Your task to perform on an android device: Open Reddit.com Image 0: 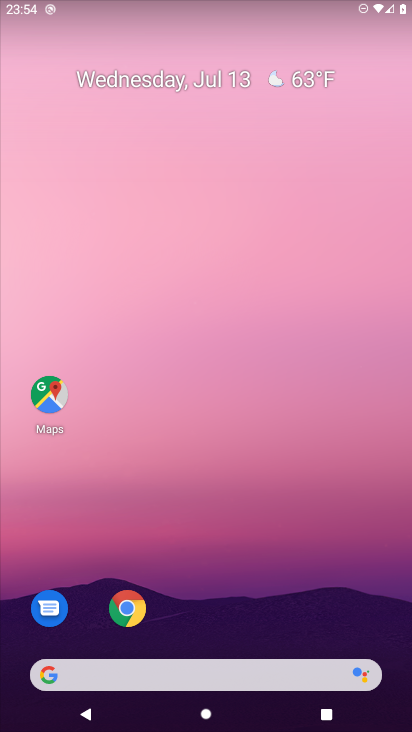
Step 0: press home button
Your task to perform on an android device: Open Reddit.com Image 1: 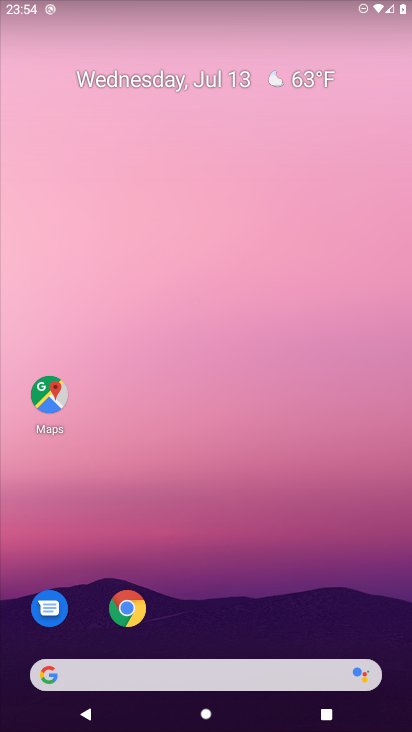
Step 1: click (51, 673)
Your task to perform on an android device: Open Reddit.com Image 2: 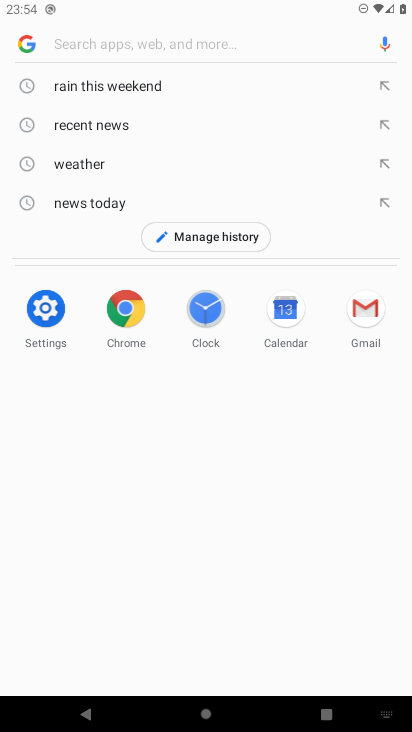
Step 2: type "Reddit.com"
Your task to perform on an android device: Open Reddit.com Image 3: 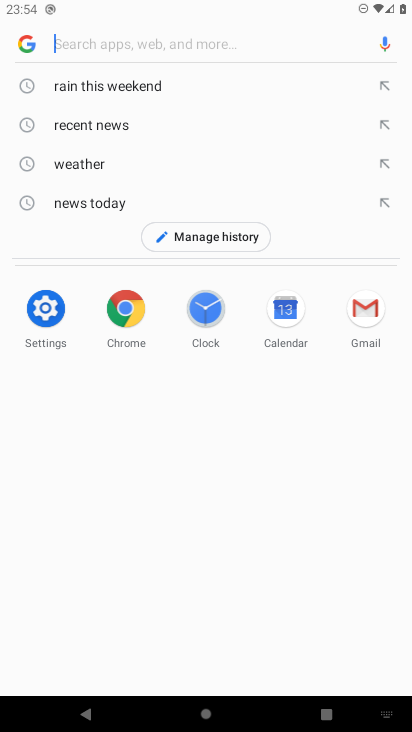
Step 3: click (204, 32)
Your task to perform on an android device: Open Reddit.com Image 4: 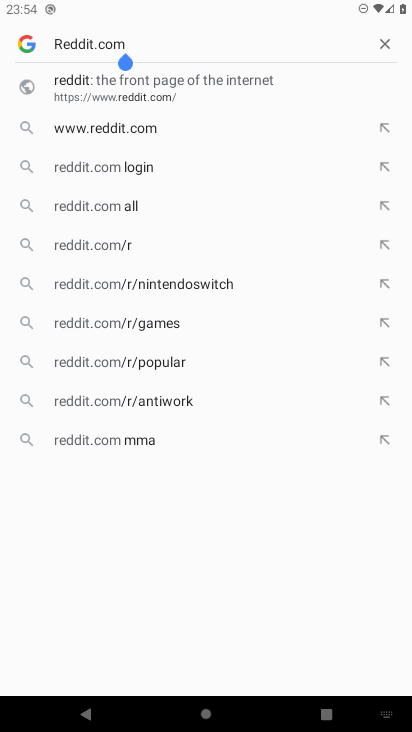
Step 4: click (108, 83)
Your task to perform on an android device: Open Reddit.com Image 5: 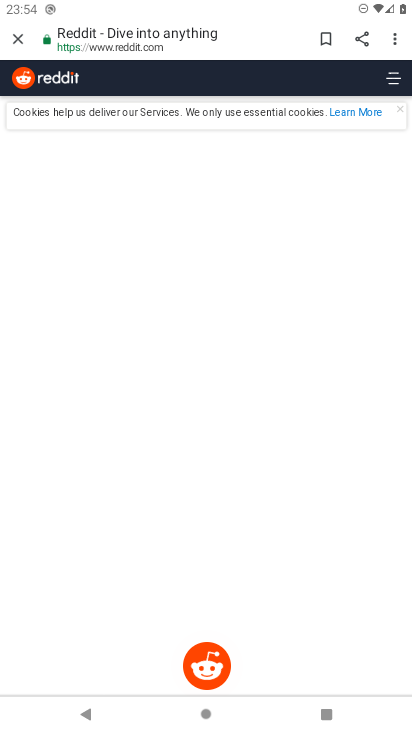
Step 5: task complete